Your task to perform on an android device: toggle airplane mode Image 0: 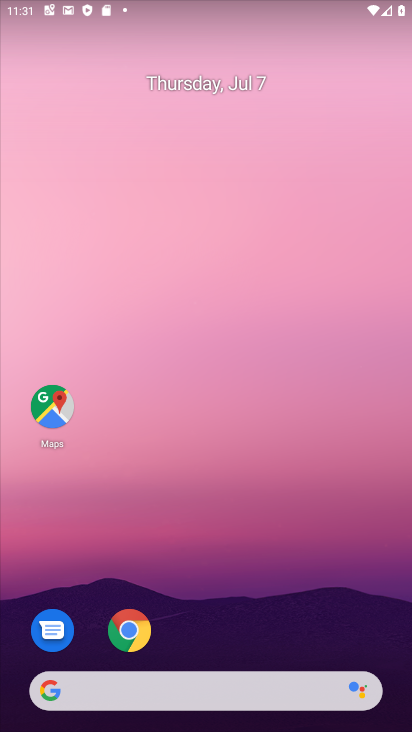
Step 0: drag from (192, 644) to (169, 123)
Your task to perform on an android device: toggle airplane mode Image 1: 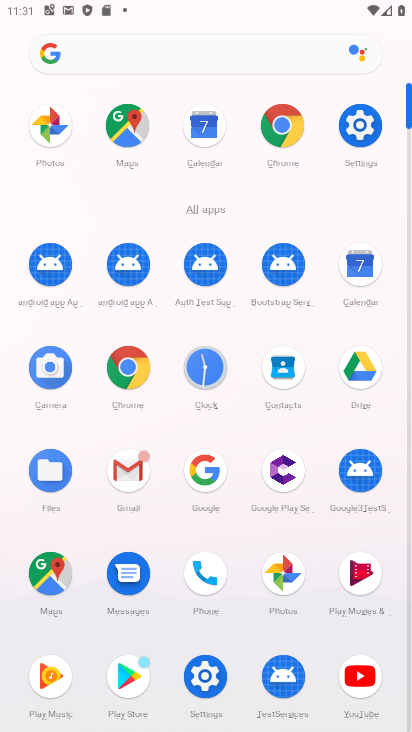
Step 1: click (333, 114)
Your task to perform on an android device: toggle airplane mode Image 2: 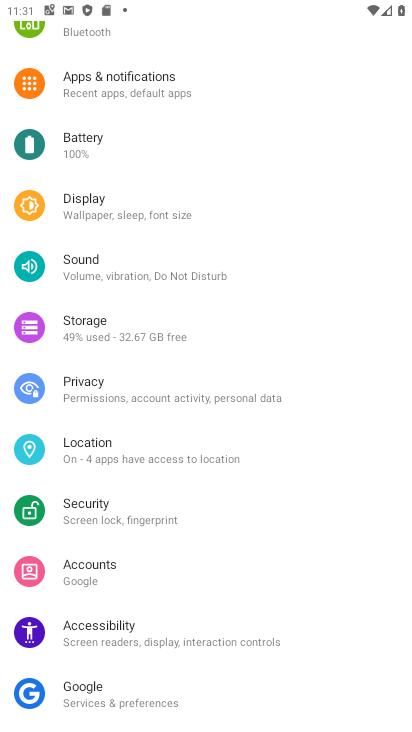
Step 2: drag from (173, 103) to (225, 589)
Your task to perform on an android device: toggle airplane mode Image 3: 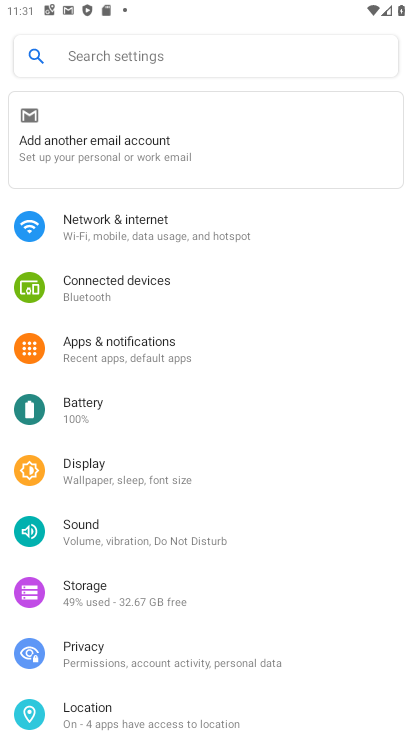
Step 3: click (159, 239)
Your task to perform on an android device: toggle airplane mode Image 4: 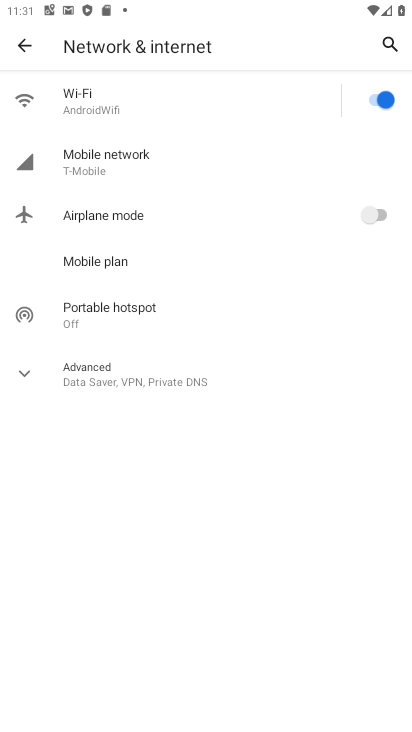
Step 4: click (390, 211)
Your task to perform on an android device: toggle airplane mode Image 5: 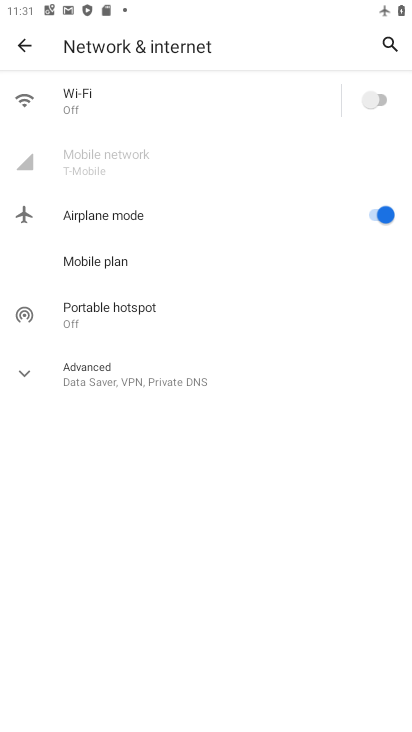
Step 5: task complete